Your task to perform on an android device: Open my contact list Image 0: 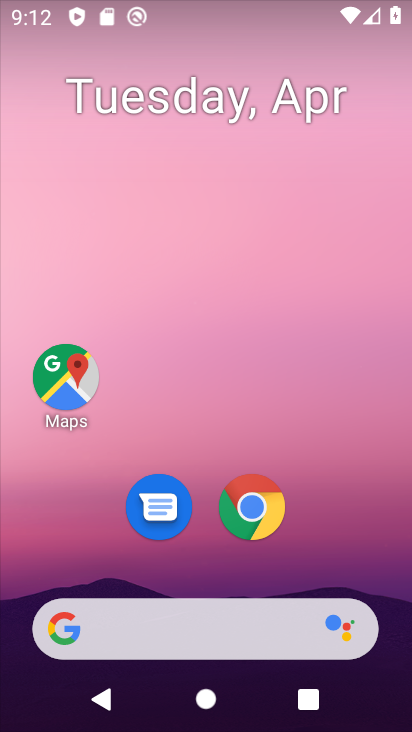
Step 0: drag from (323, 542) to (298, 134)
Your task to perform on an android device: Open my contact list Image 1: 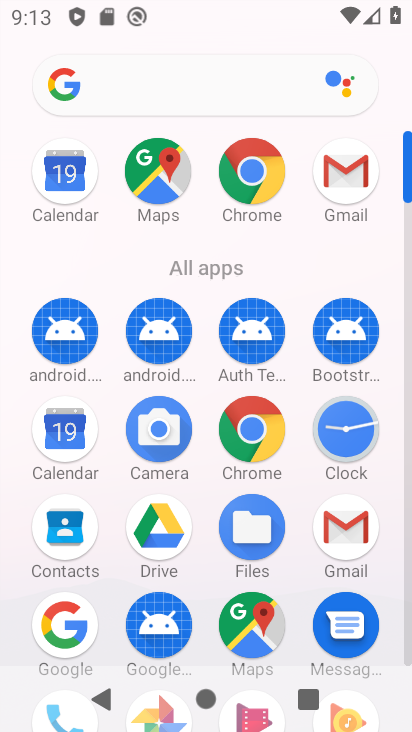
Step 1: click (74, 533)
Your task to perform on an android device: Open my contact list Image 2: 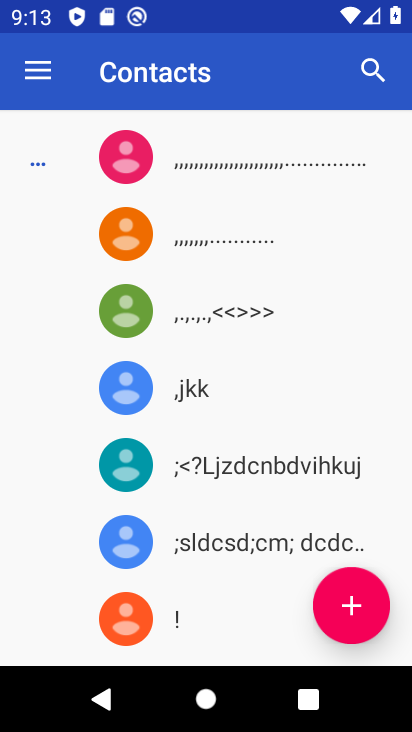
Step 2: task complete